Your task to perform on an android device: When is my next meeting? Image 0: 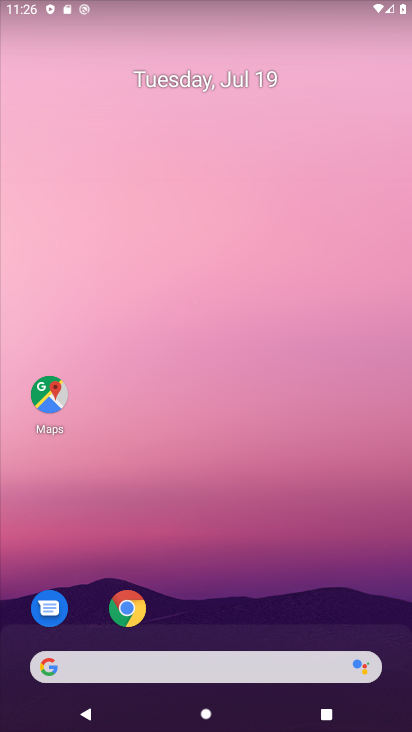
Step 0: drag from (184, 650) to (233, 61)
Your task to perform on an android device: When is my next meeting? Image 1: 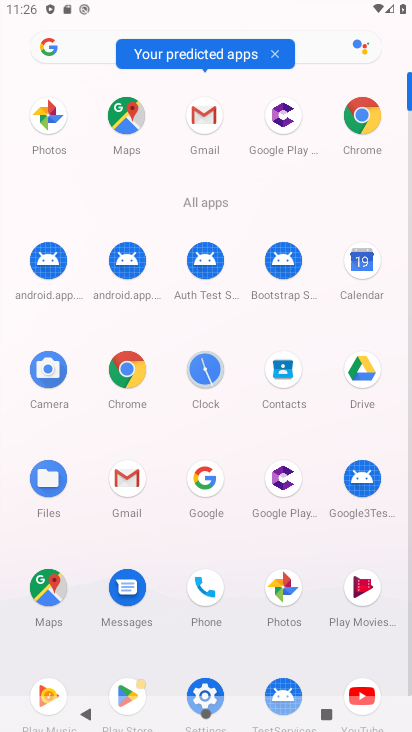
Step 1: click (362, 261)
Your task to perform on an android device: When is my next meeting? Image 2: 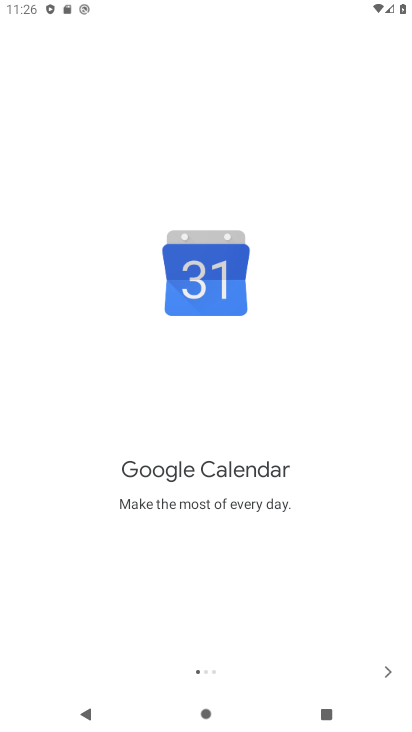
Step 2: click (385, 679)
Your task to perform on an android device: When is my next meeting? Image 3: 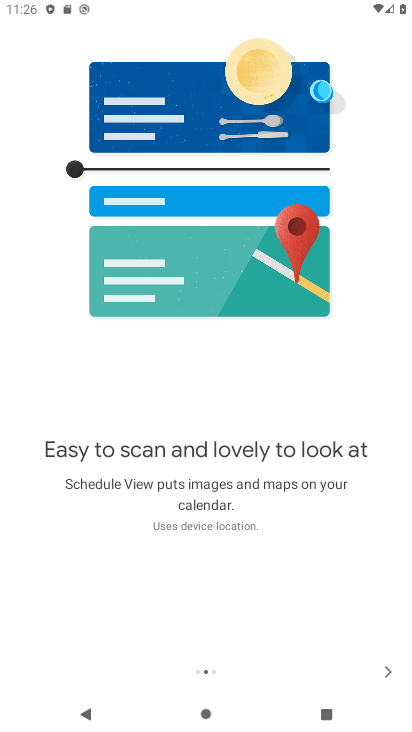
Step 3: click (385, 677)
Your task to perform on an android device: When is my next meeting? Image 4: 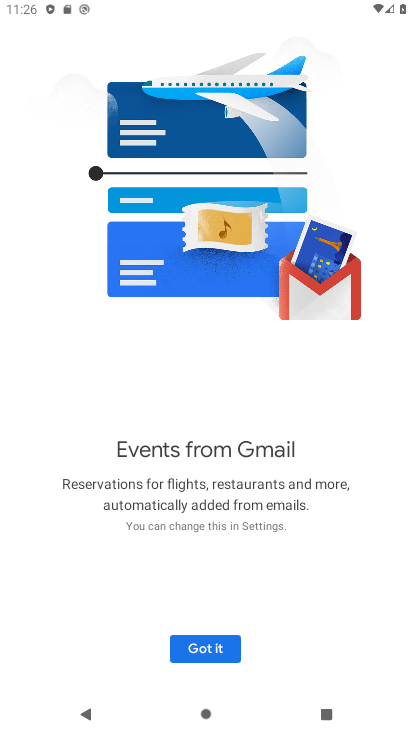
Step 4: click (186, 648)
Your task to perform on an android device: When is my next meeting? Image 5: 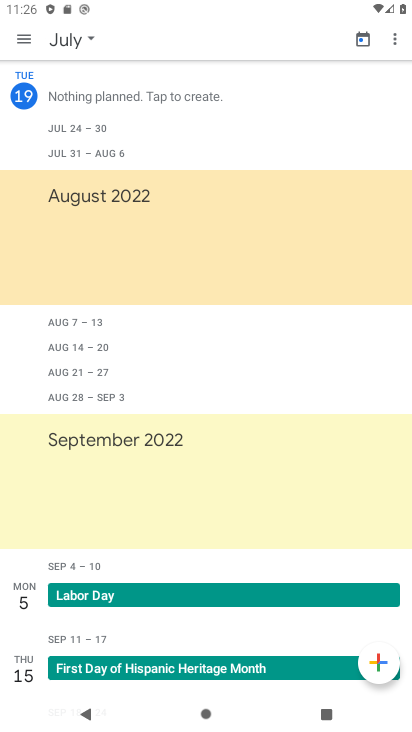
Step 5: click (75, 37)
Your task to perform on an android device: When is my next meeting? Image 6: 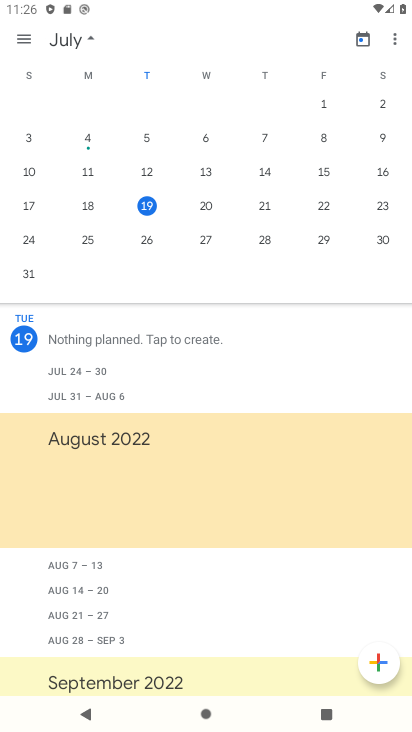
Step 6: click (262, 206)
Your task to perform on an android device: When is my next meeting? Image 7: 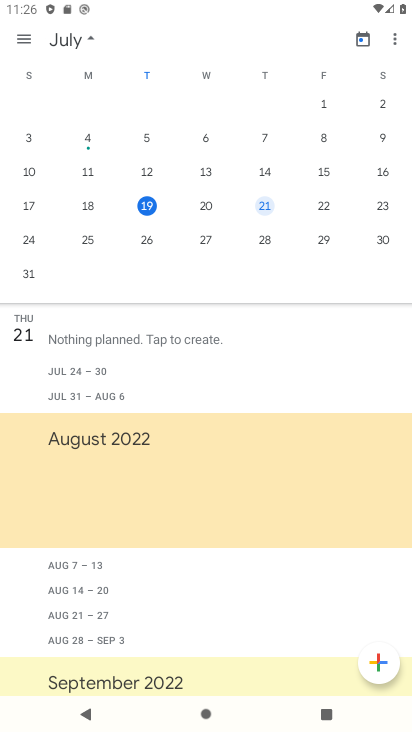
Step 7: task complete